Your task to perform on an android device: change alarm snooze length Image 0: 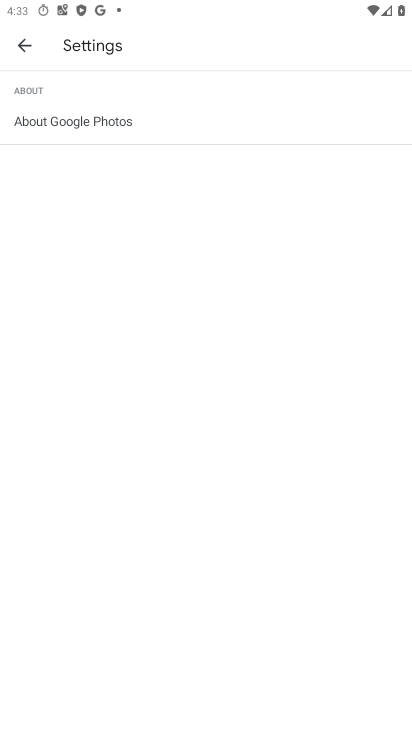
Step 0: press home button
Your task to perform on an android device: change alarm snooze length Image 1: 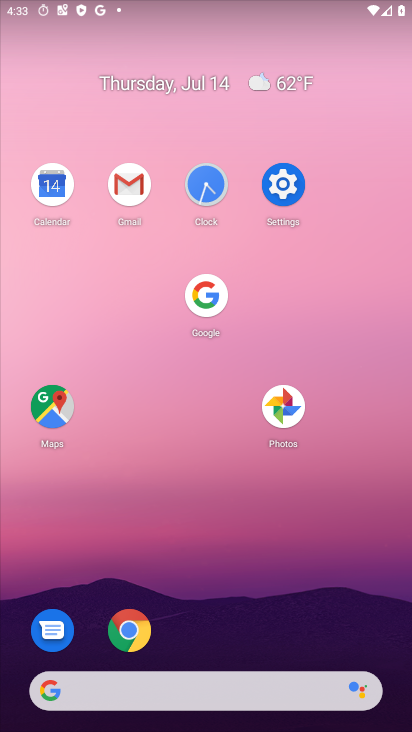
Step 1: click (198, 175)
Your task to perform on an android device: change alarm snooze length Image 2: 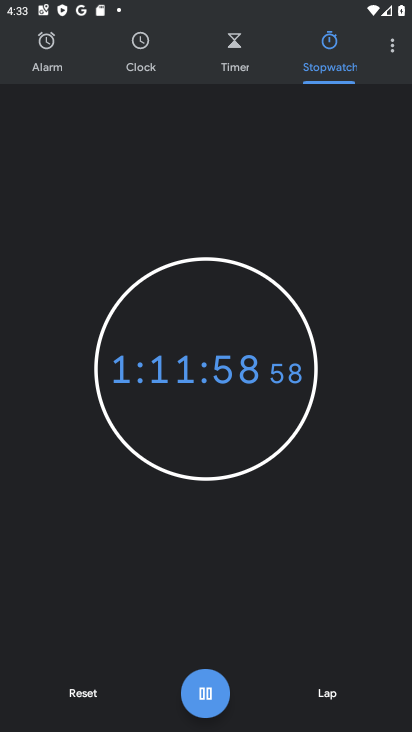
Step 2: click (386, 39)
Your task to perform on an android device: change alarm snooze length Image 3: 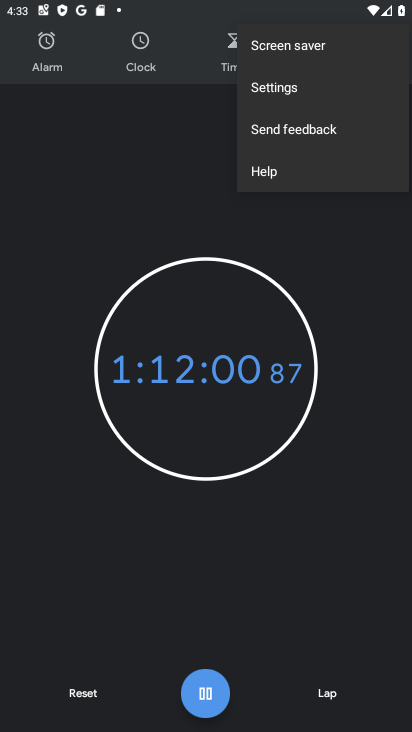
Step 3: click (277, 79)
Your task to perform on an android device: change alarm snooze length Image 4: 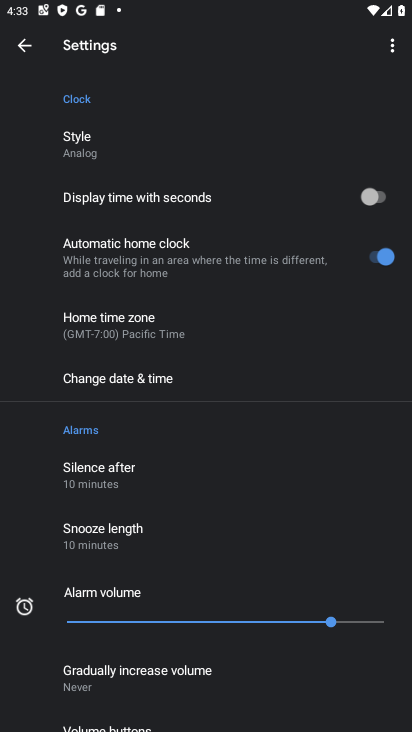
Step 4: click (167, 549)
Your task to perform on an android device: change alarm snooze length Image 5: 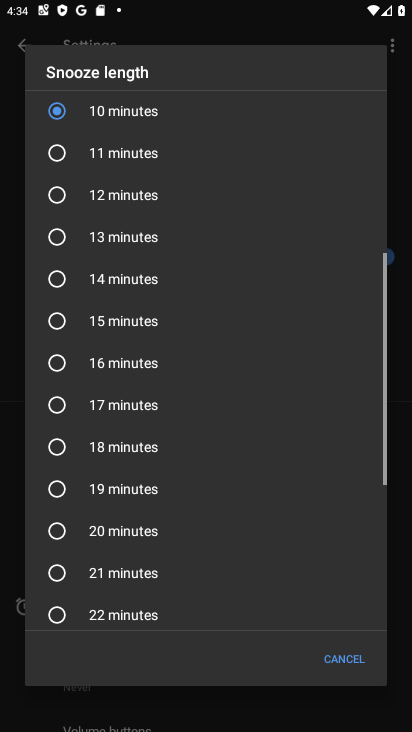
Step 5: click (124, 161)
Your task to perform on an android device: change alarm snooze length Image 6: 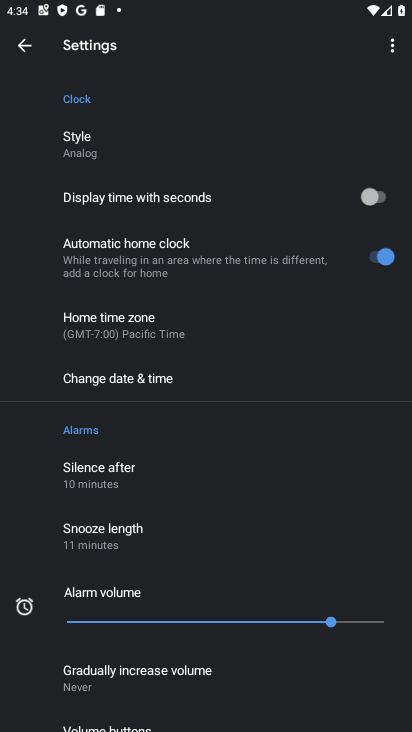
Step 6: task complete